Your task to perform on an android device: turn off location Image 0: 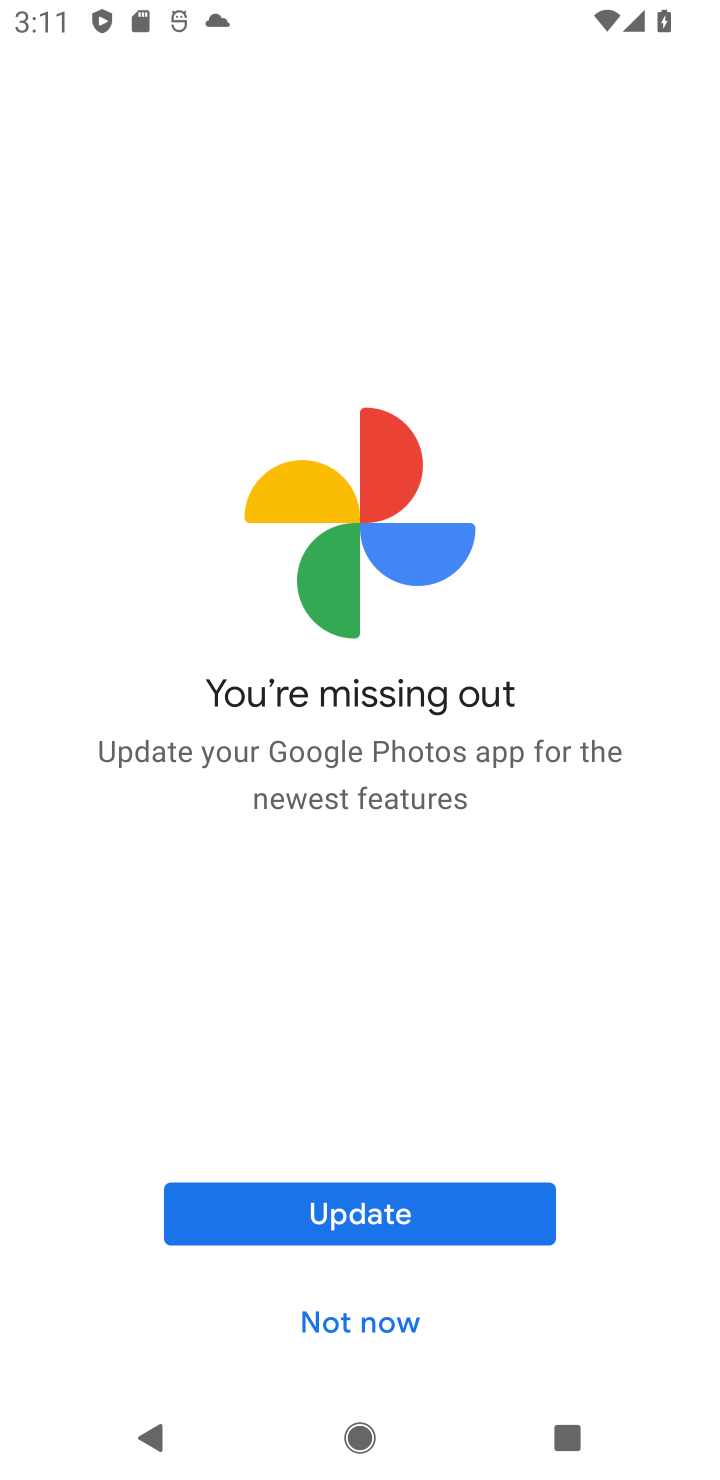
Step 0: press home button
Your task to perform on an android device: turn off location Image 1: 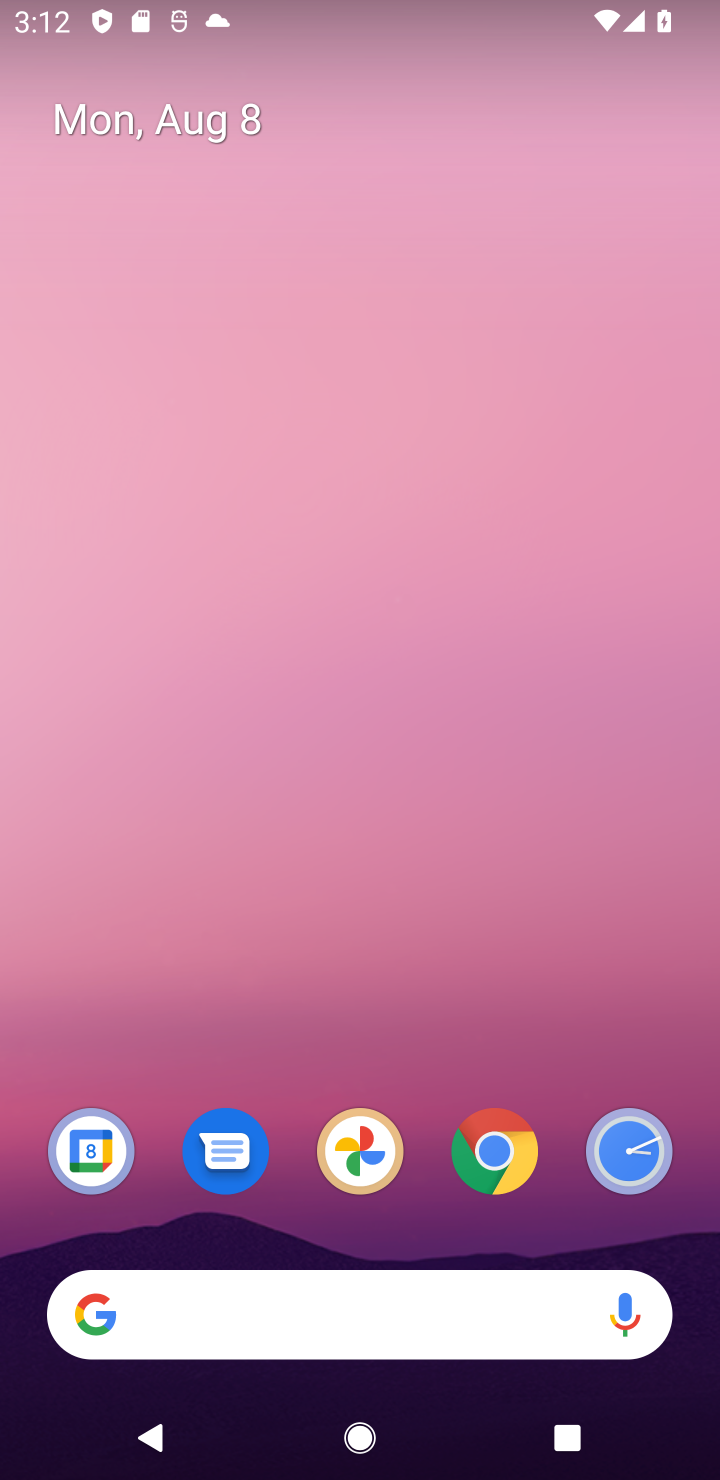
Step 1: drag from (388, 1058) to (396, 145)
Your task to perform on an android device: turn off location Image 2: 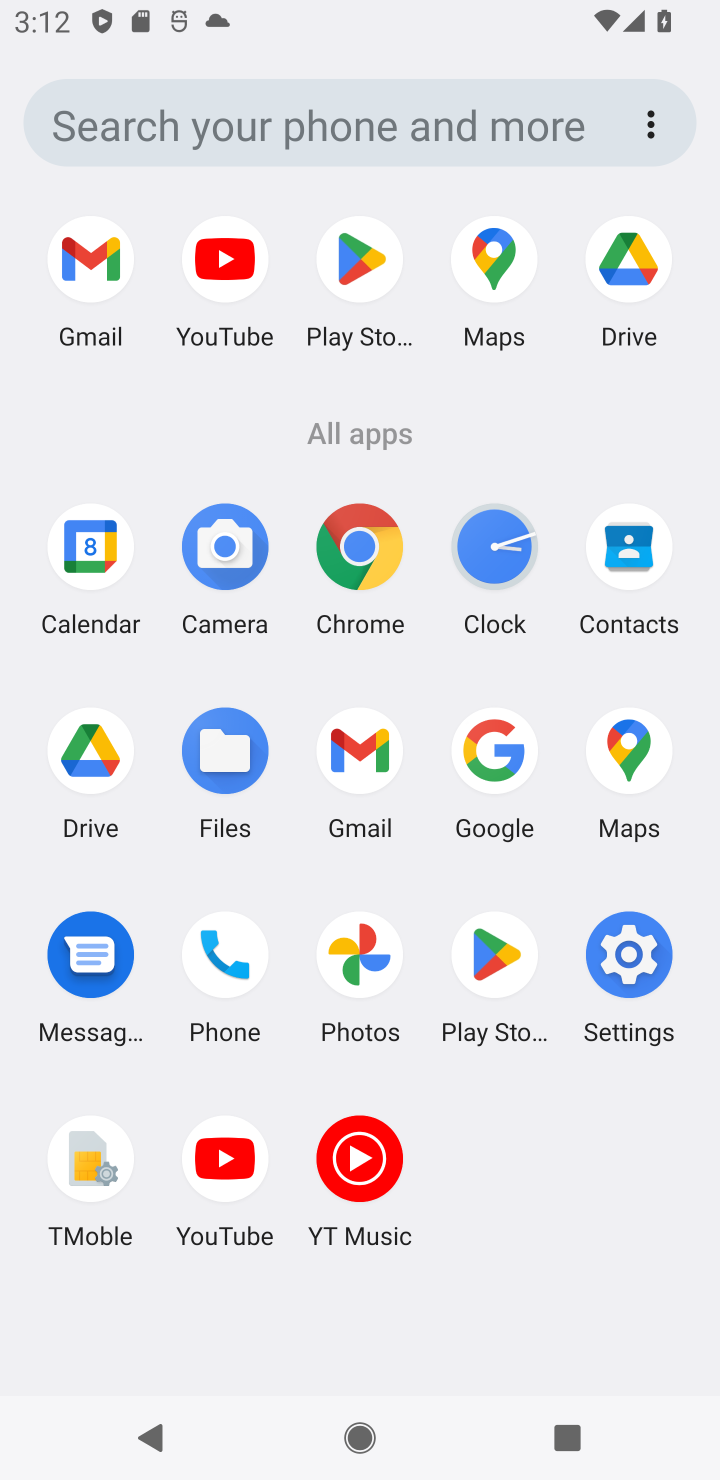
Step 2: click (664, 982)
Your task to perform on an android device: turn off location Image 3: 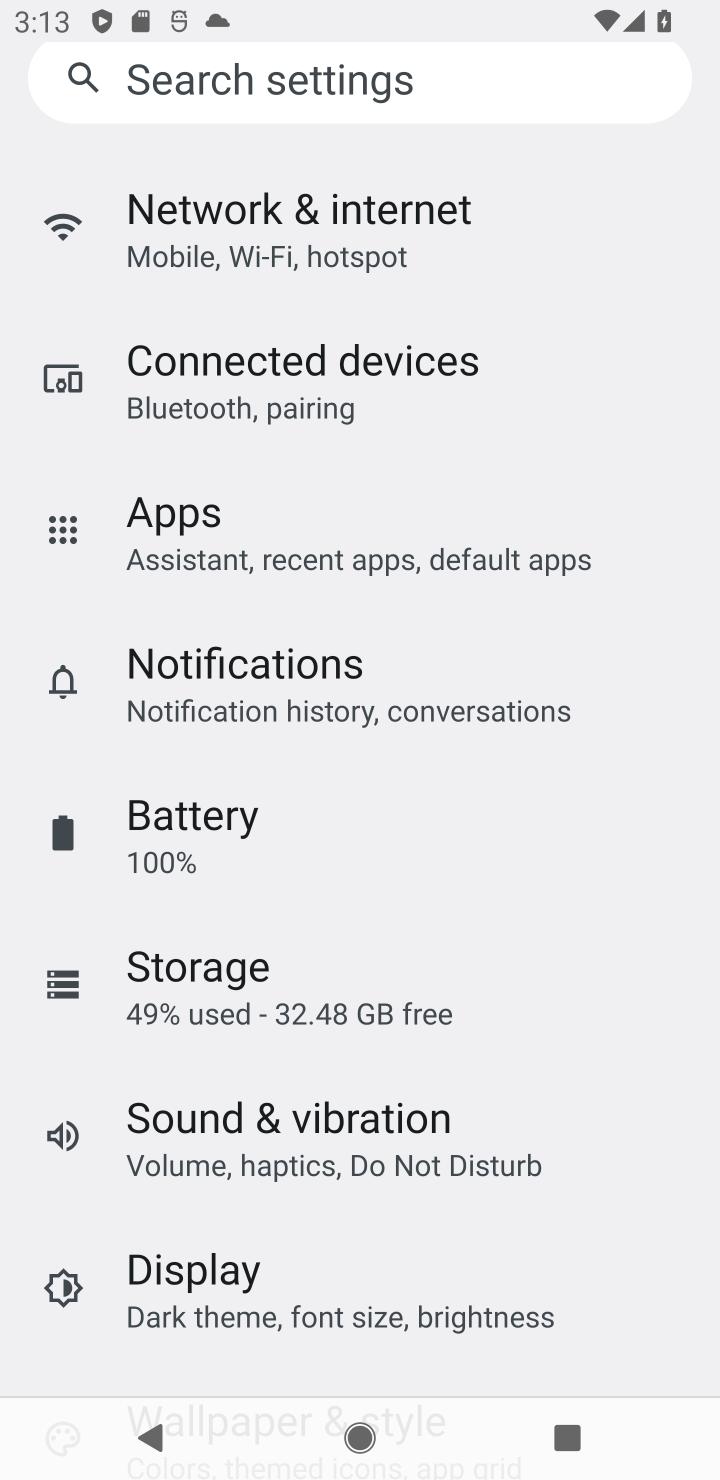
Step 3: drag from (328, 1243) to (333, 423)
Your task to perform on an android device: turn off location Image 4: 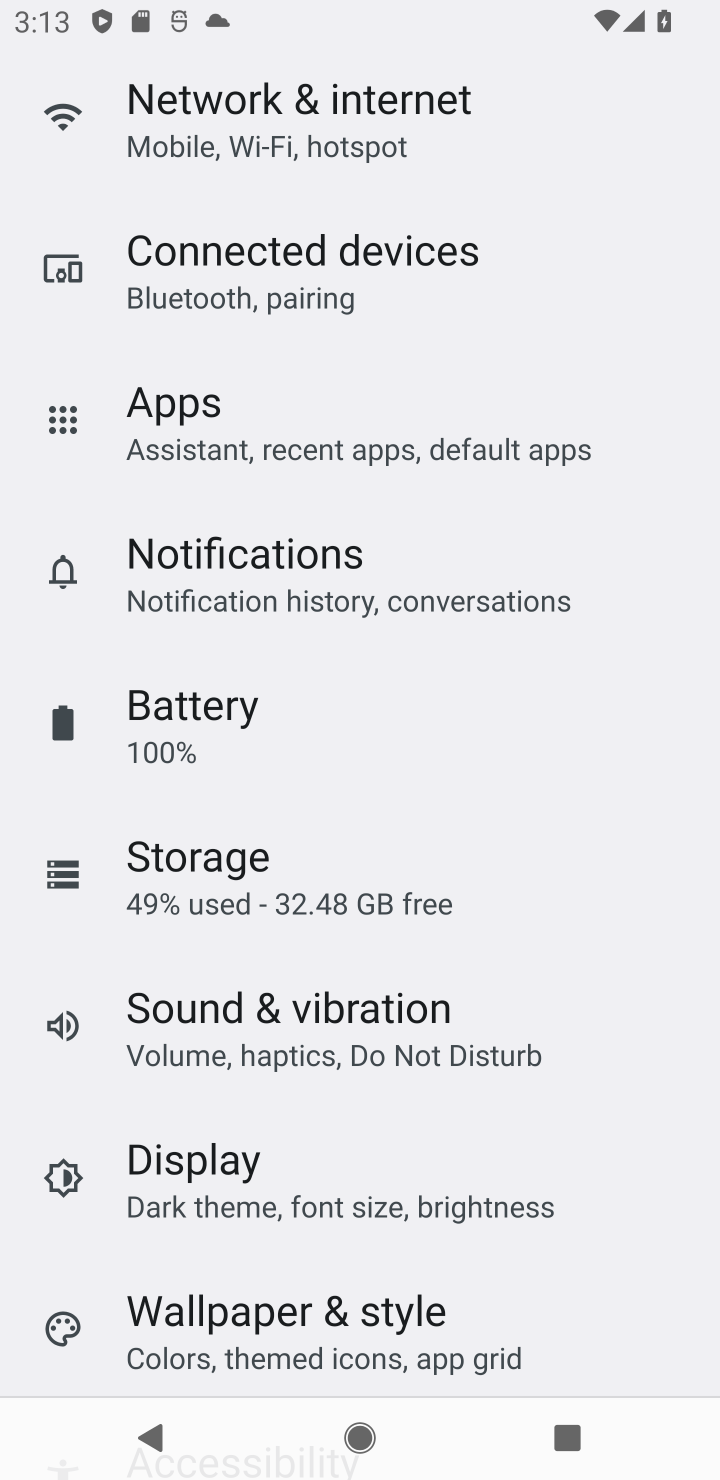
Step 4: drag from (401, 1189) to (404, 433)
Your task to perform on an android device: turn off location Image 5: 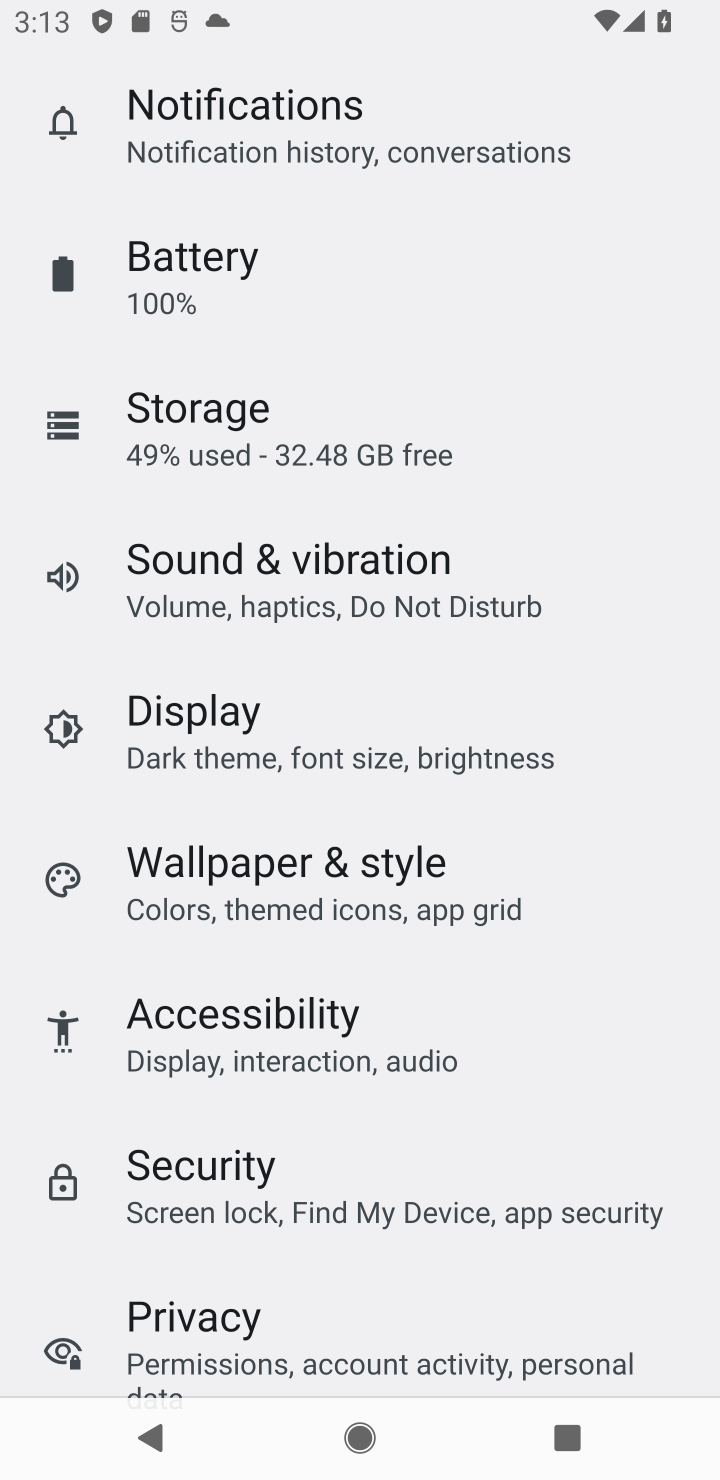
Step 5: drag from (353, 1137) to (353, 269)
Your task to perform on an android device: turn off location Image 6: 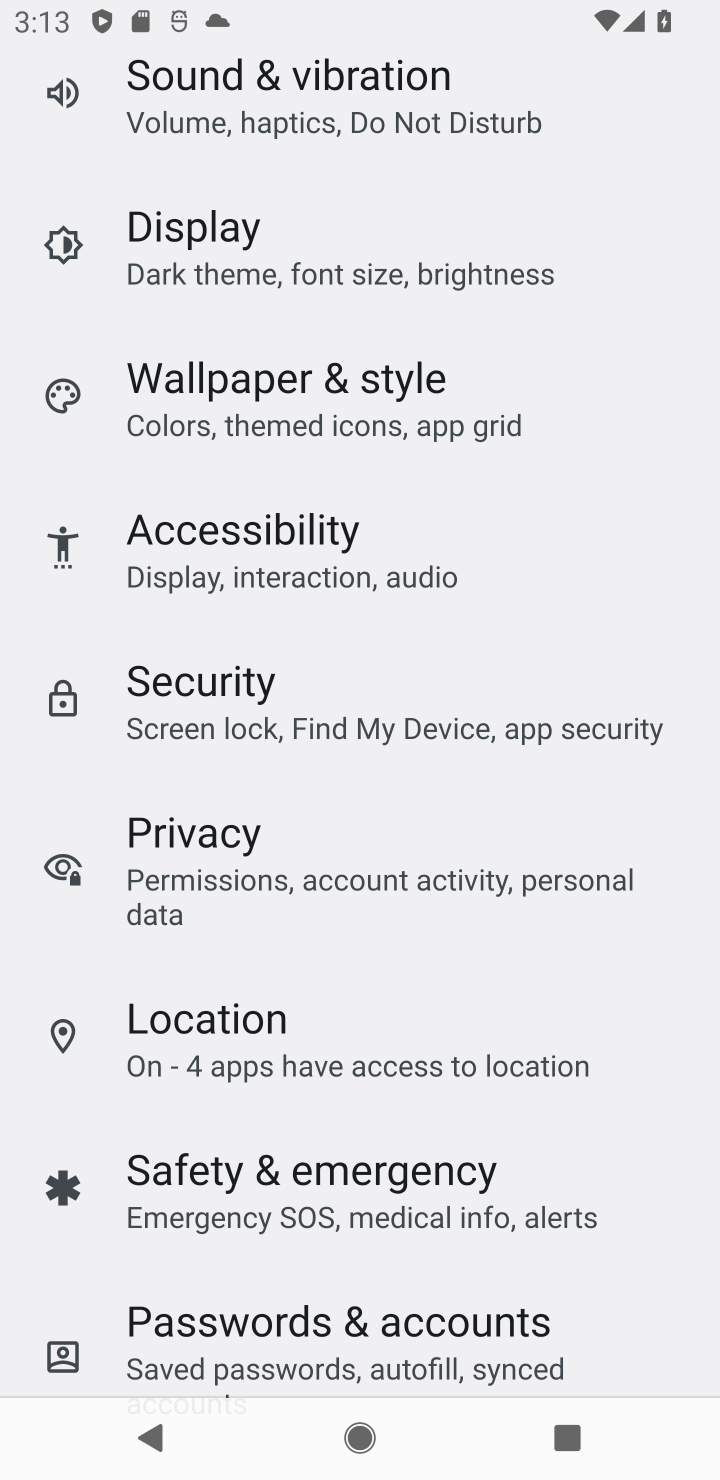
Step 6: click (256, 1055)
Your task to perform on an android device: turn off location Image 7: 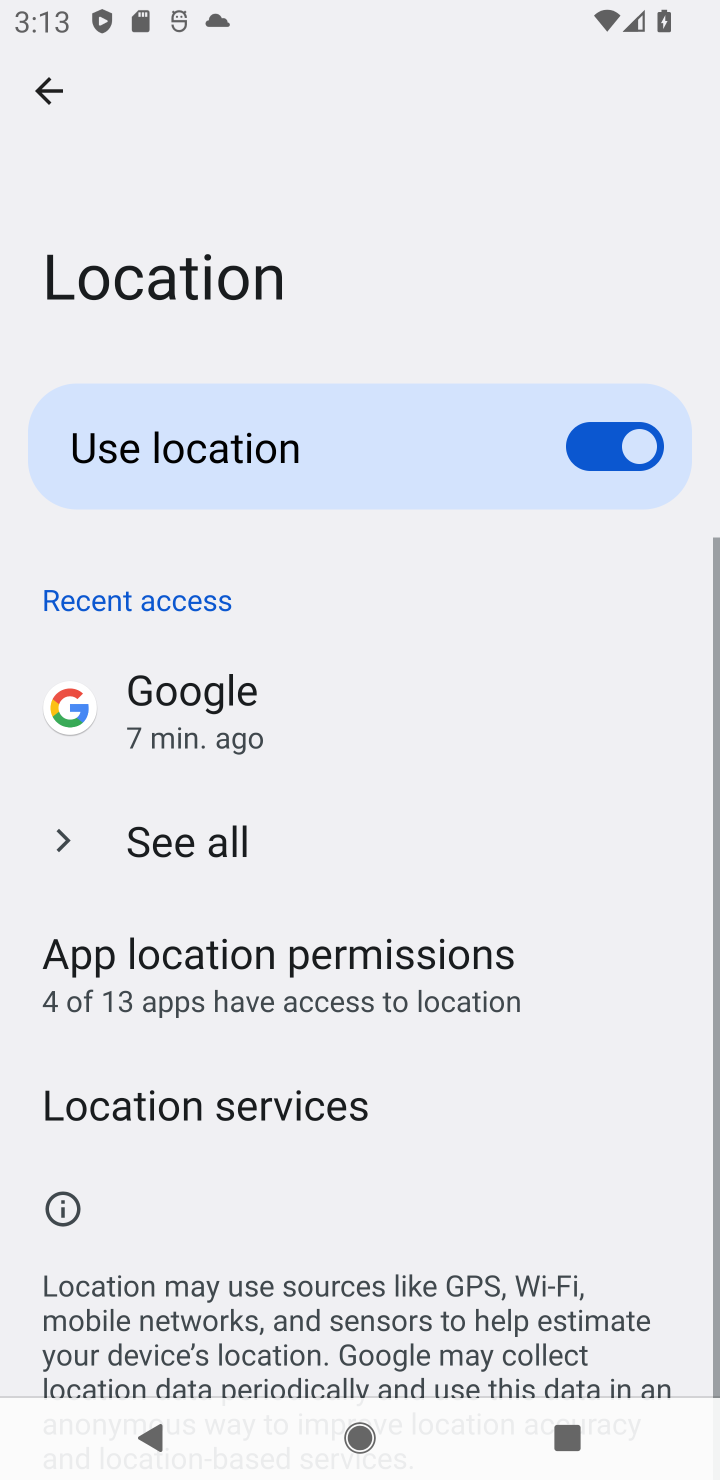
Step 7: click (592, 418)
Your task to perform on an android device: turn off location Image 8: 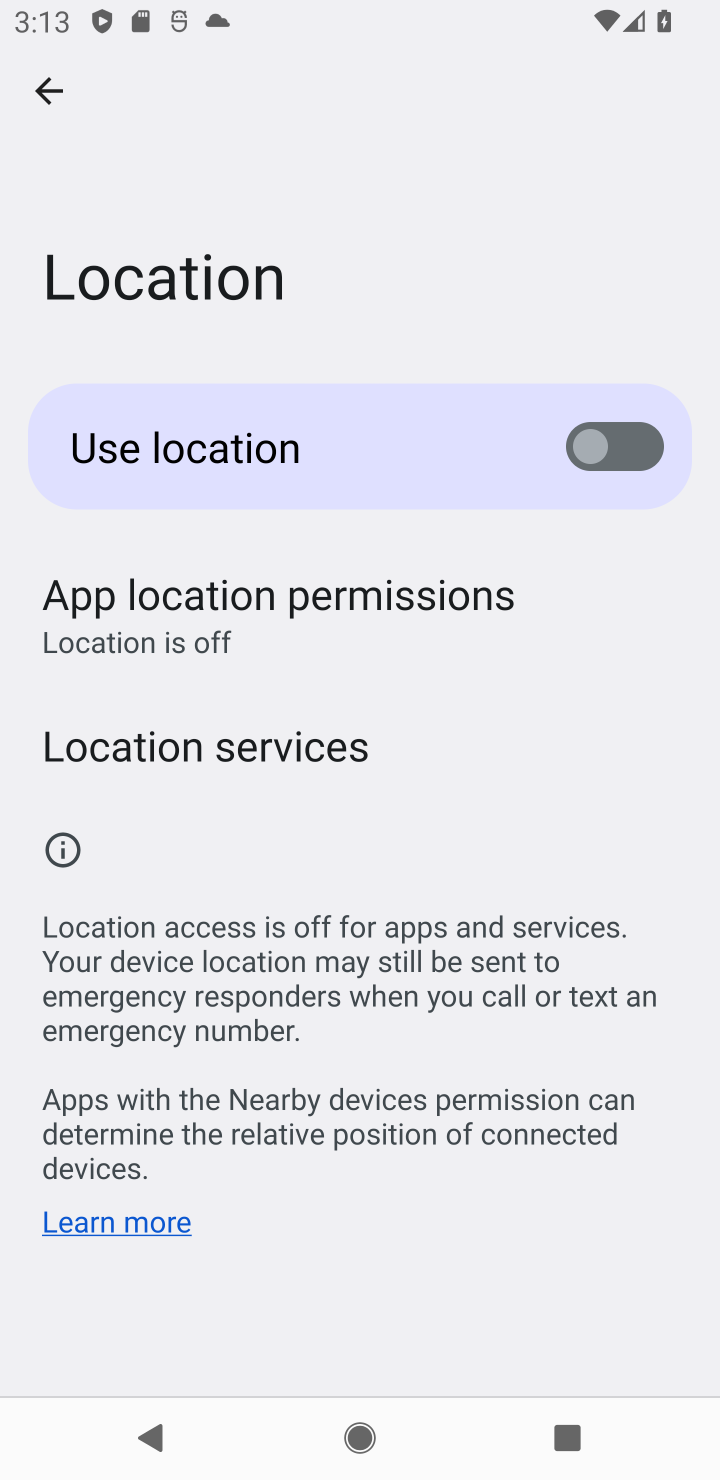
Step 8: task complete